Your task to perform on an android device: Go to eBay Image 0: 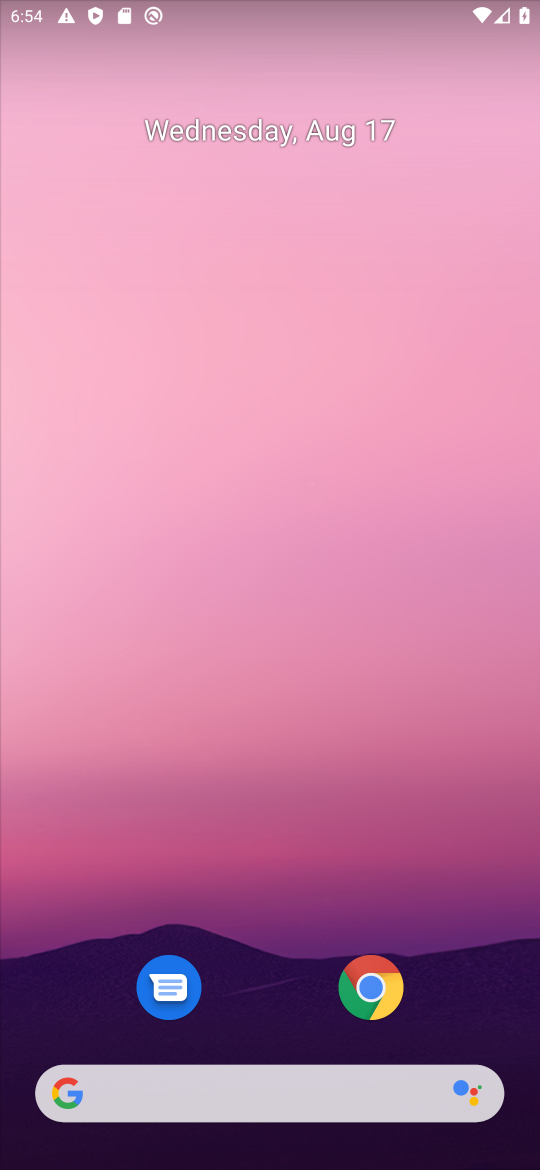
Step 0: press home button
Your task to perform on an android device: Go to eBay Image 1: 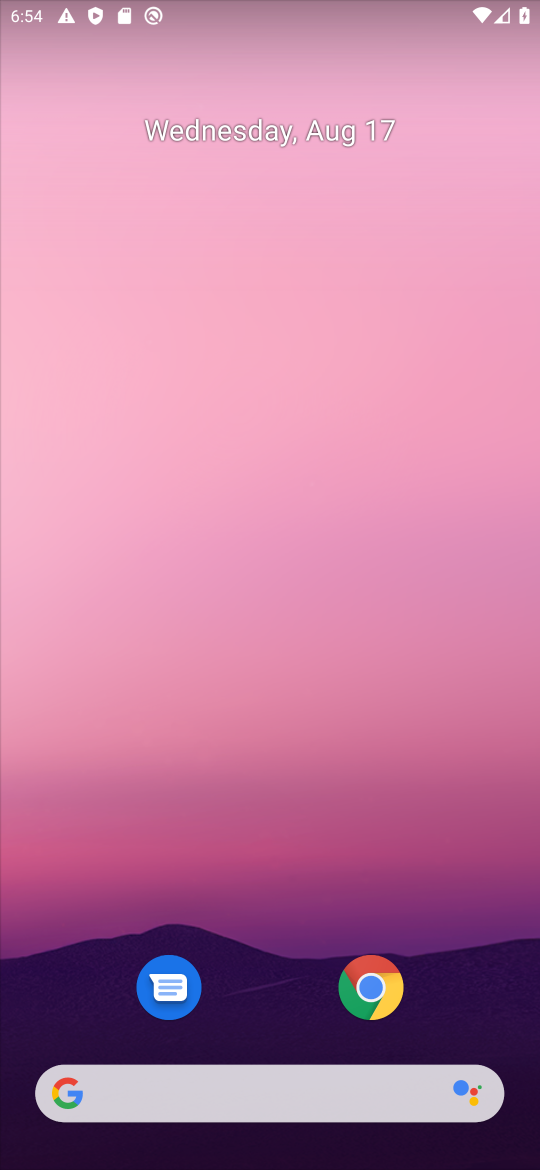
Step 1: drag from (473, 982) to (319, 195)
Your task to perform on an android device: Go to eBay Image 2: 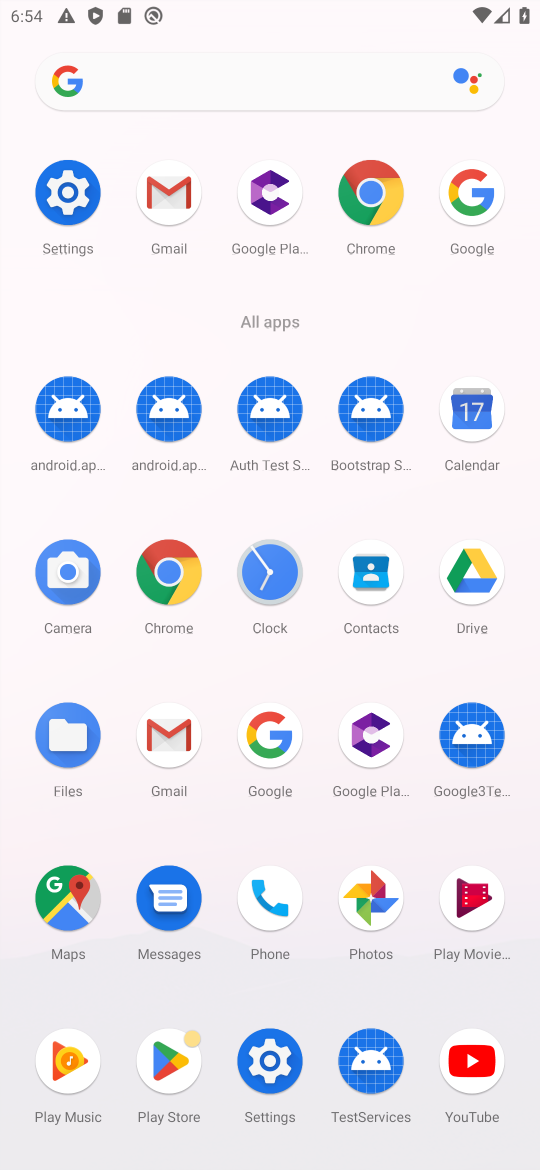
Step 2: click (270, 719)
Your task to perform on an android device: Go to eBay Image 3: 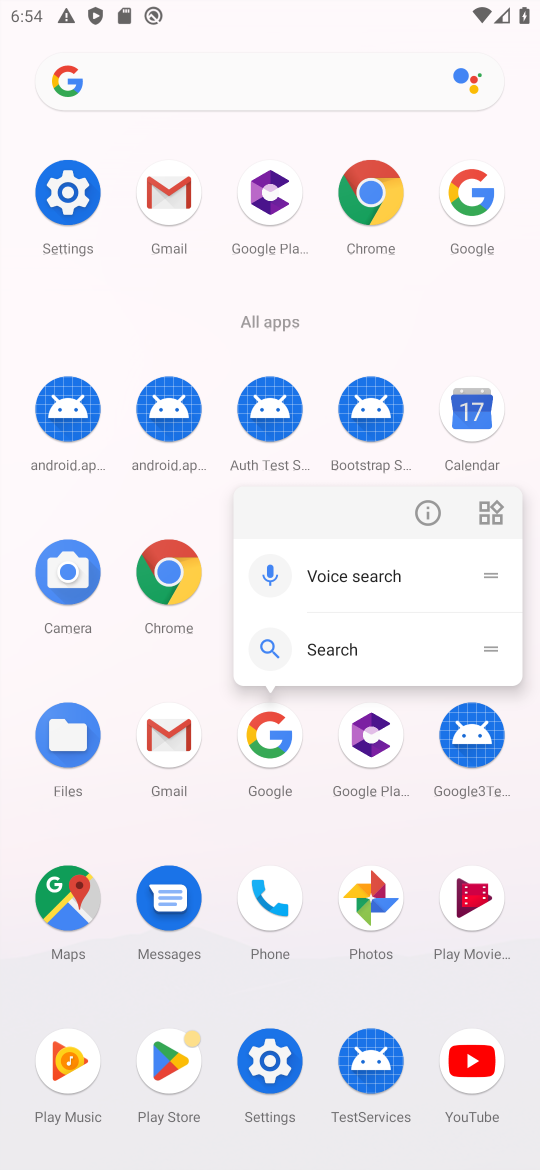
Step 3: click (270, 748)
Your task to perform on an android device: Go to eBay Image 4: 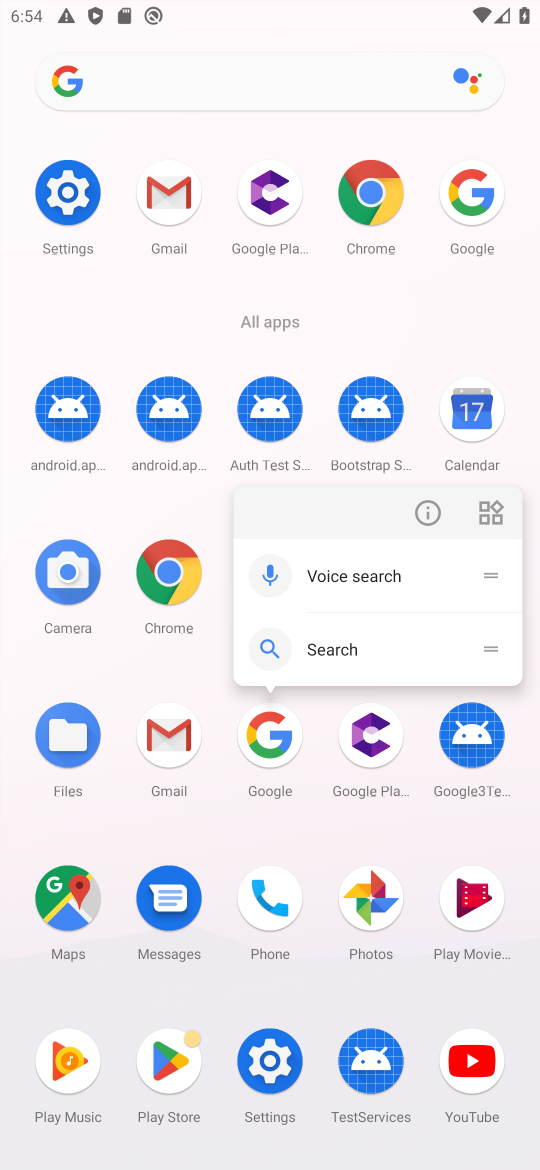
Step 4: click (270, 748)
Your task to perform on an android device: Go to eBay Image 5: 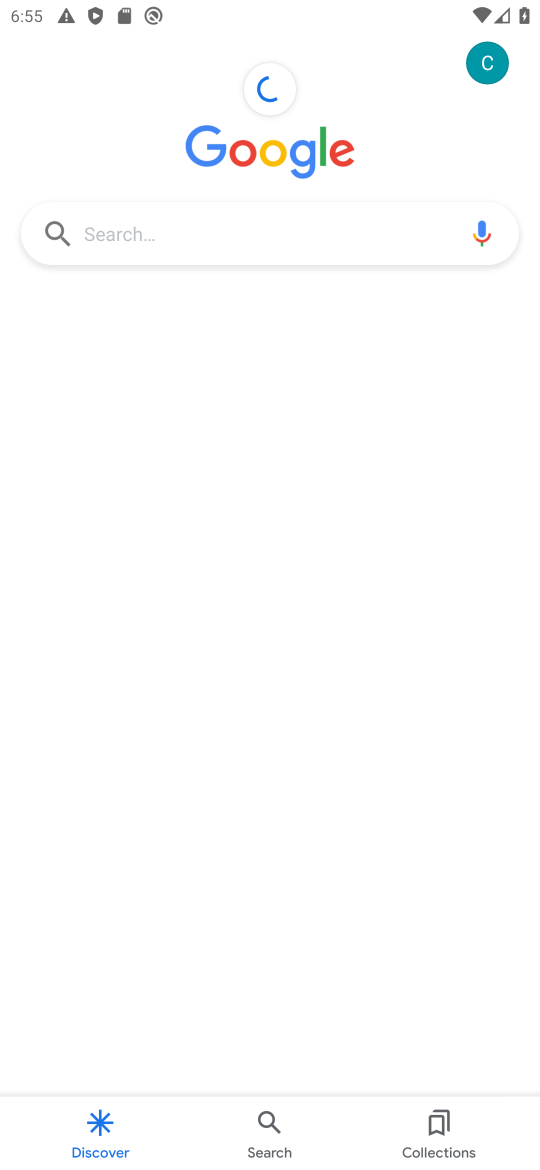
Step 5: click (175, 236)
Your task to perform on an android device: Go to eBay Image 6: 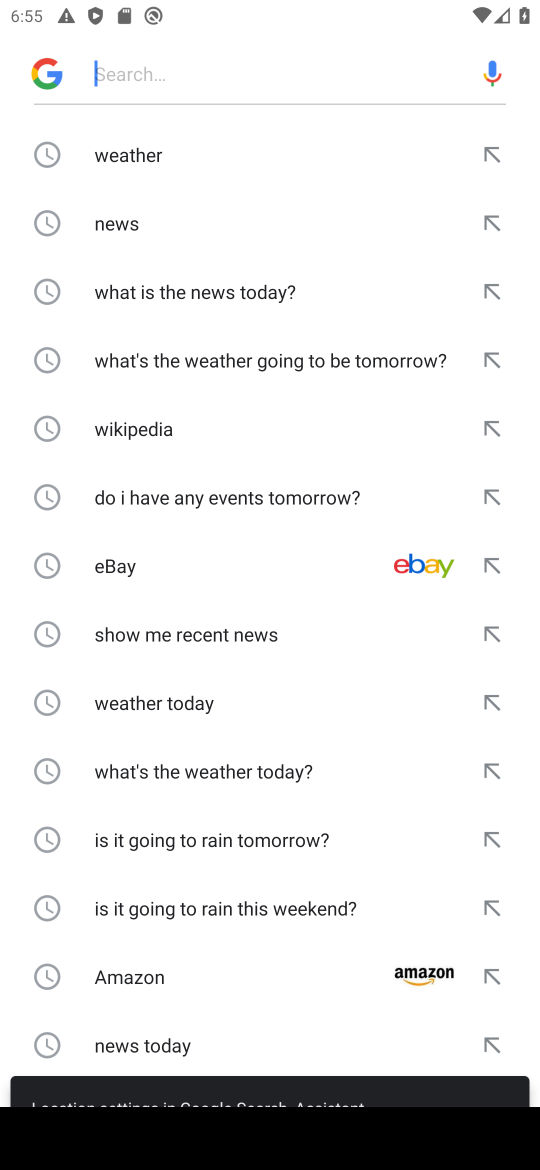
Step 6: click (135, 557)
Your task to perform on an android device: Go to eBay Image 7: 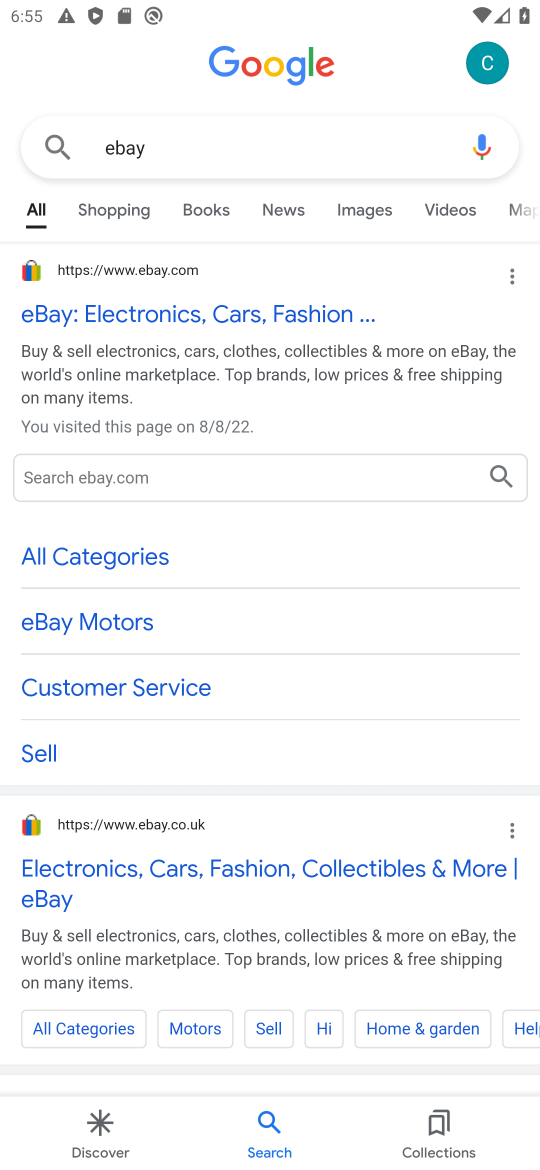
Step 7: task complete